Your task to perform on an android device: Clear all items from cart on target. Search for bose soundlink on target, select the first entry, add it to the cart, then select checkout. Image 0: 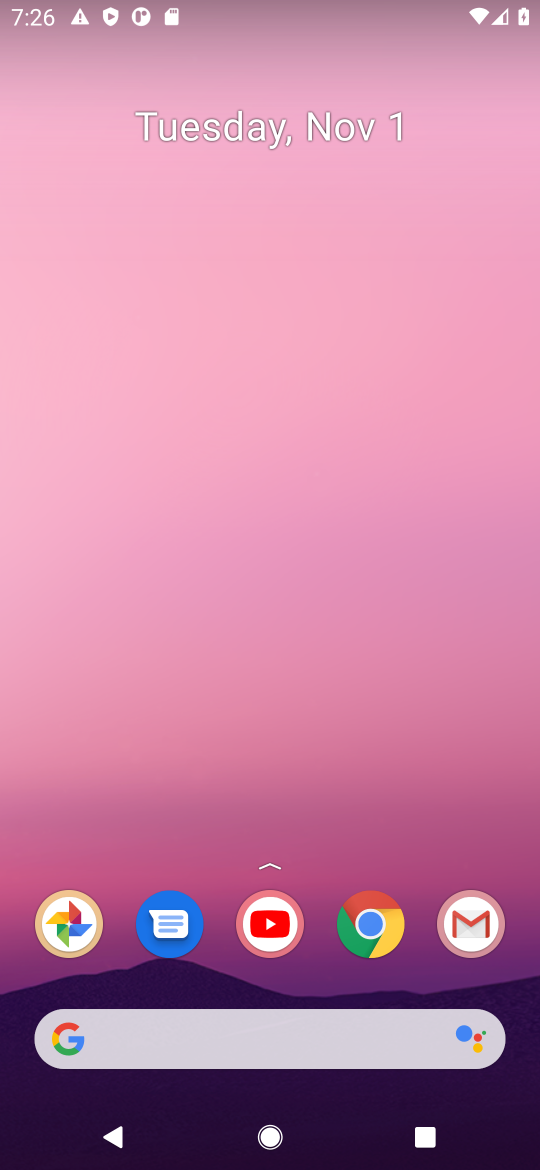
Step 0: press home button
Your task to perform on an android device: Clear all items from cart on target. Search for bose soundlink on target, select the first entry, add it to the cart, then select checkout. Image 1: 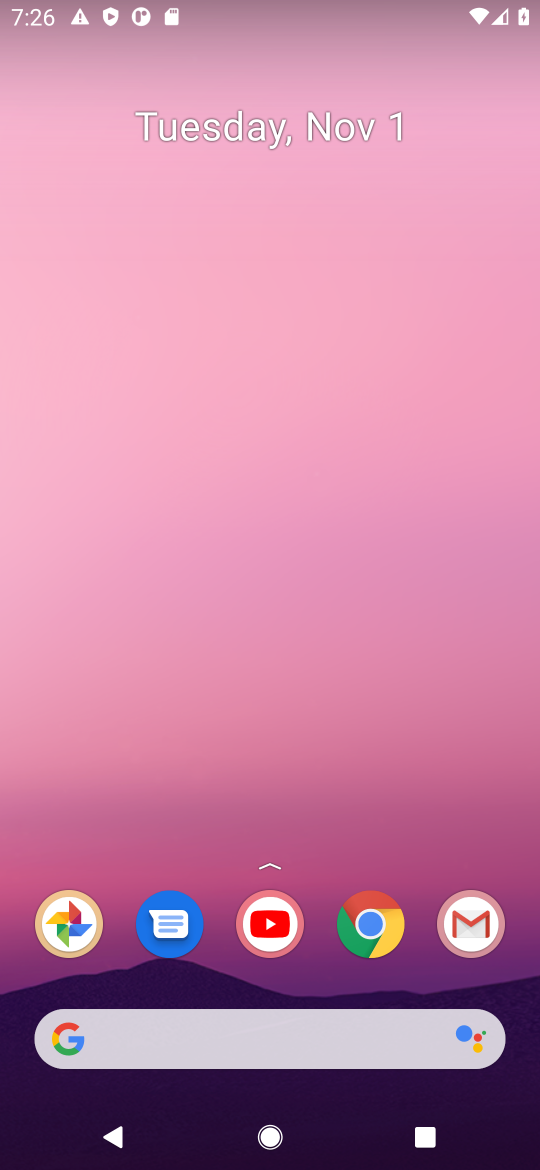
Step 1: click (93, 1048)
Your task to perform on an android device: Clear all items from cart on target. Search for bose soundlink on target, select the first entry, add it to the cart, then select checkout. Image 2: 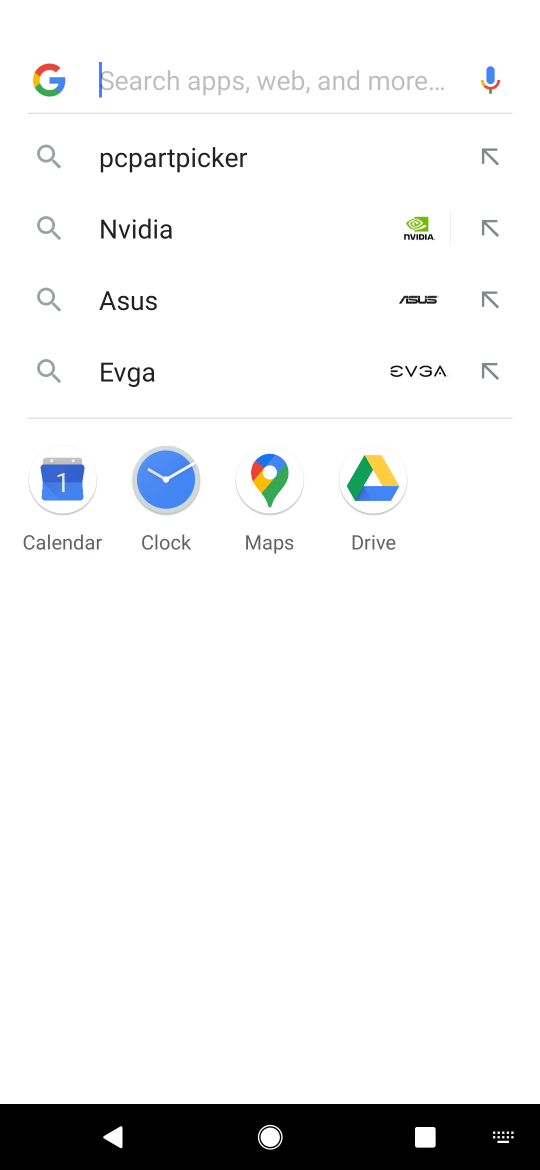
Step 2: type "target"
Your task to perform on an android device: Clear all items from cart on target. Search for bose soundlink on target, select the first entry, add it to the cart, then select checkout. Image 3: 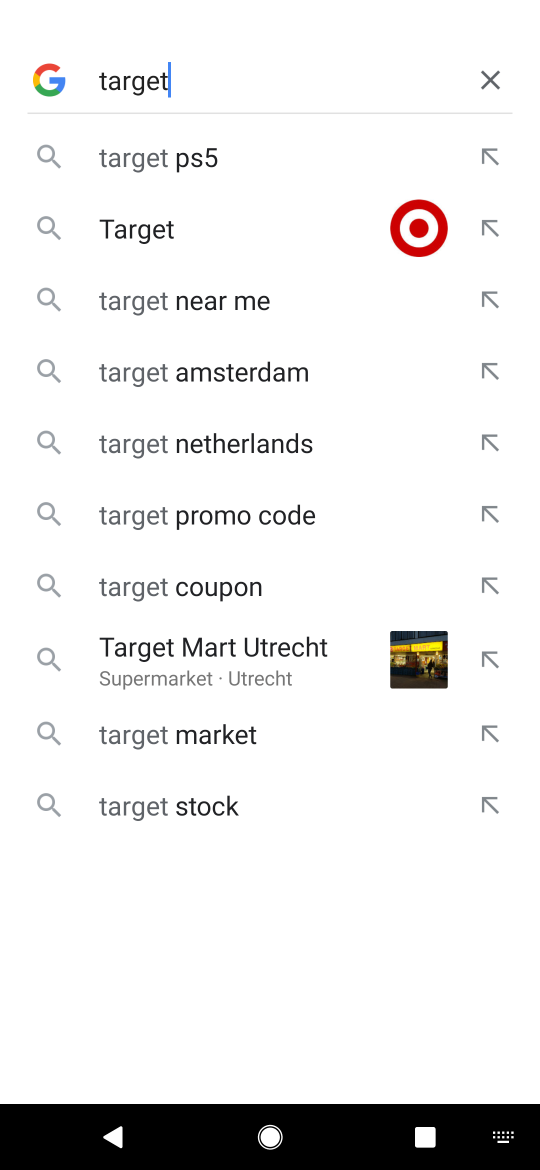
Step 3: press enter
Your task to perform on an android device: Clear all items from cart on target. Search for bose soundlink on target, select the first entry, add it to the cart, then select checkout. Image 4: 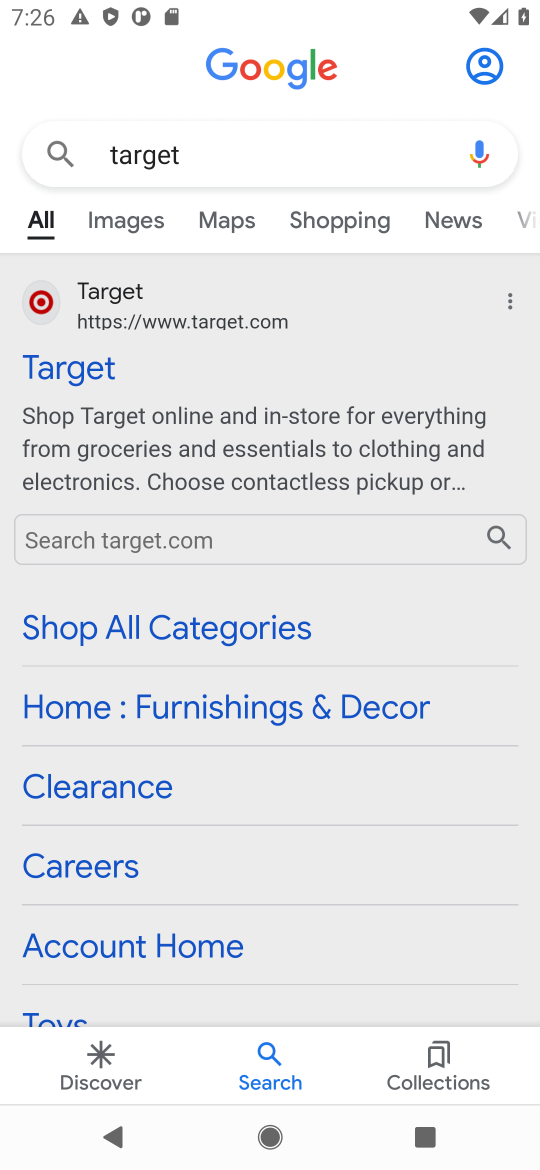
Step 4: click (91, 366)
Your task to perform on an android device: Clear all items from cart on target. Search for bose soundlink on target, select the first entry, add it to the cart, then select checkout. Image 5: 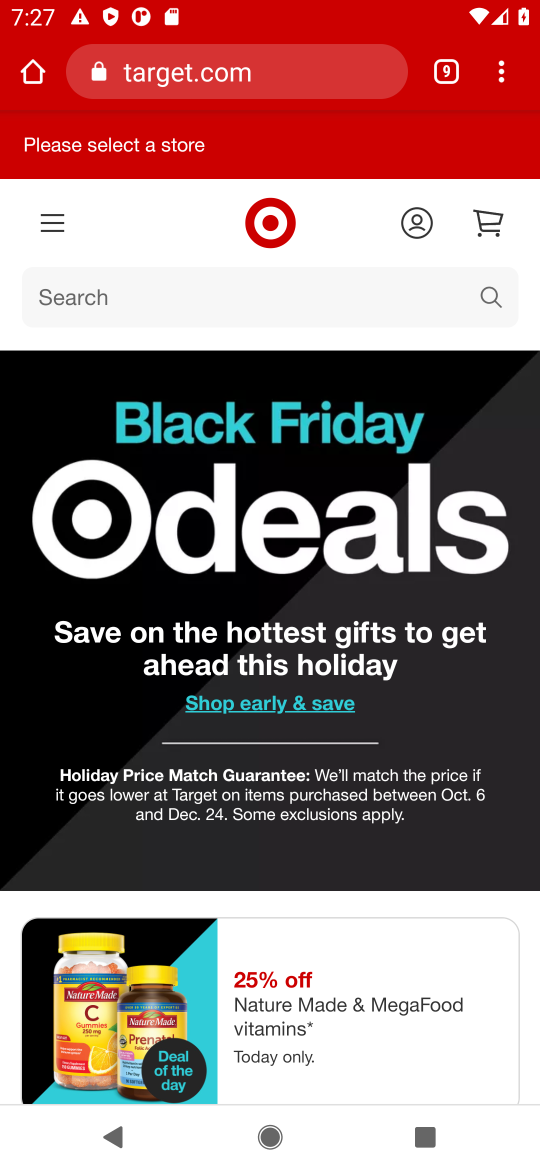
Step 5: click (497, 217)
Your task to perform on an android device: Clear all items from cart on target. Search for bose soundlink on target, select the first entry, add it to the cart, then select checkout. Image 6: 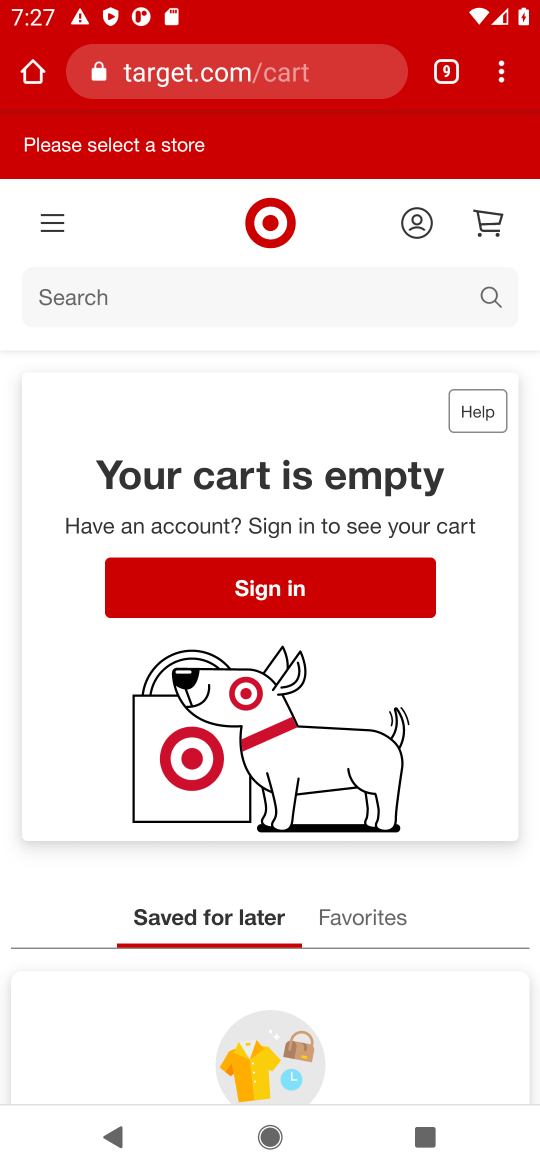
Step 6: click (146, 305)
Your task to perform on an android device: Clear all items from cart on target. Search for bose soundlink on target, select the first entry, add it to the cart, then select checkout. Image 7: 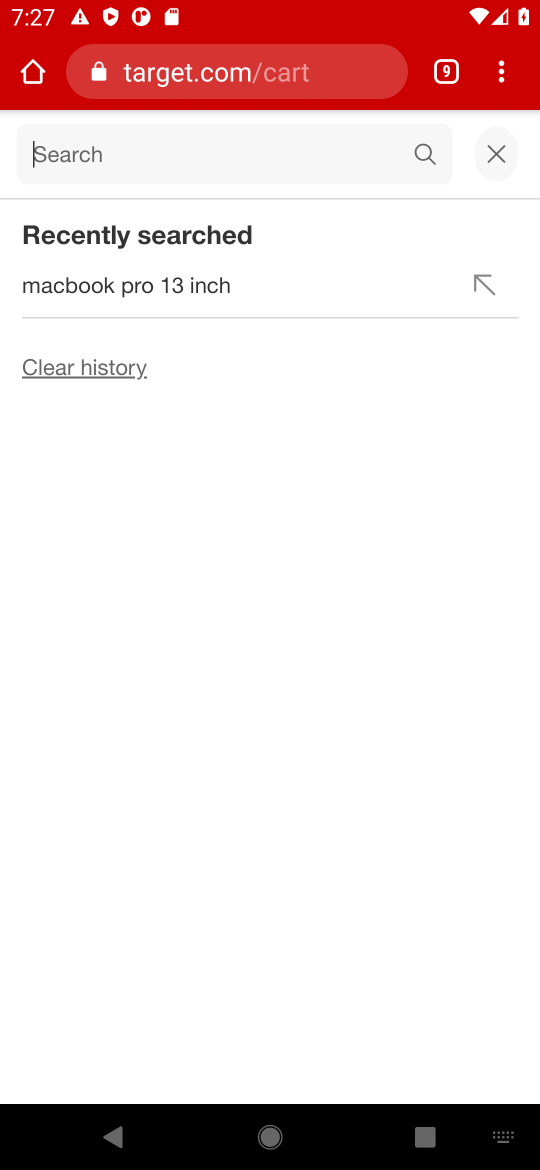
Step 7: type "bose soundlink"
Your task to perform on an android device: Clear all items from cart on target. Search for bose soundlink on target, select the first entry, add it to the cart, then select checkout. Image 8: 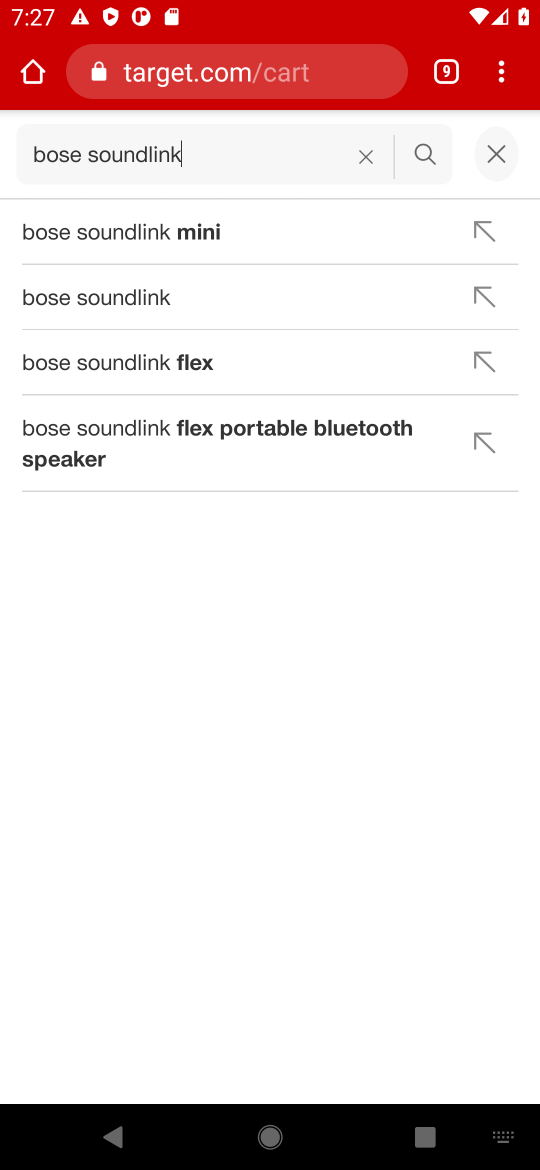
Step 8: press enter
Your task to perform on an android device: Clear all items from cart on target. Search for bose soundlink on target, select the first entry, add it to the cart, then select checkout. Image 9: 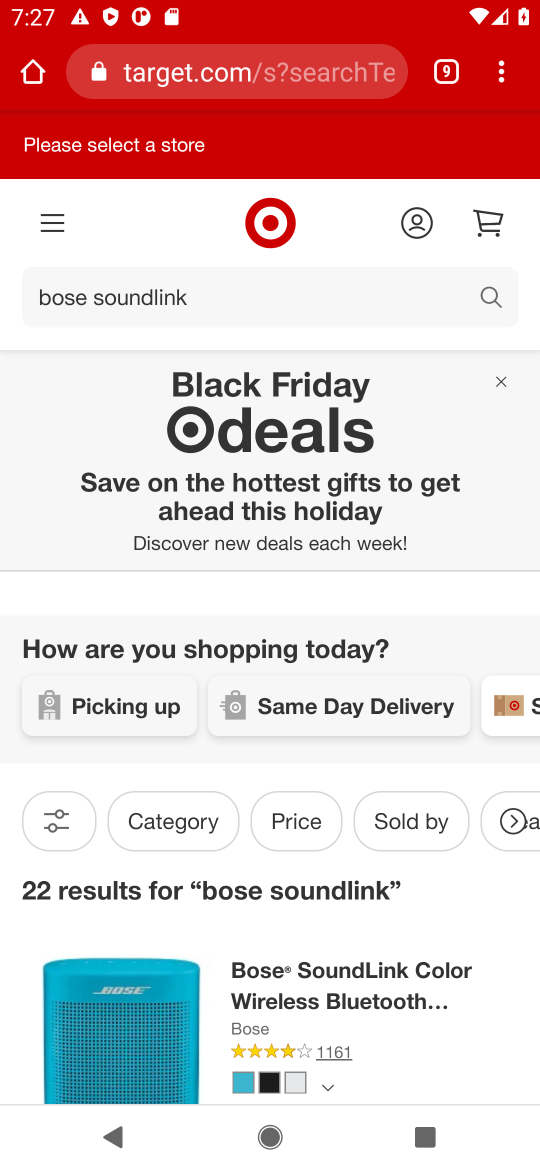
Step 9: drag from (422, 970) to (422, 645)
Your task to perform on an android device: Clear all items from cart on target. Search for bose soundlink on target, select the first entry, add it to the cart, then select checkout. Image 10: 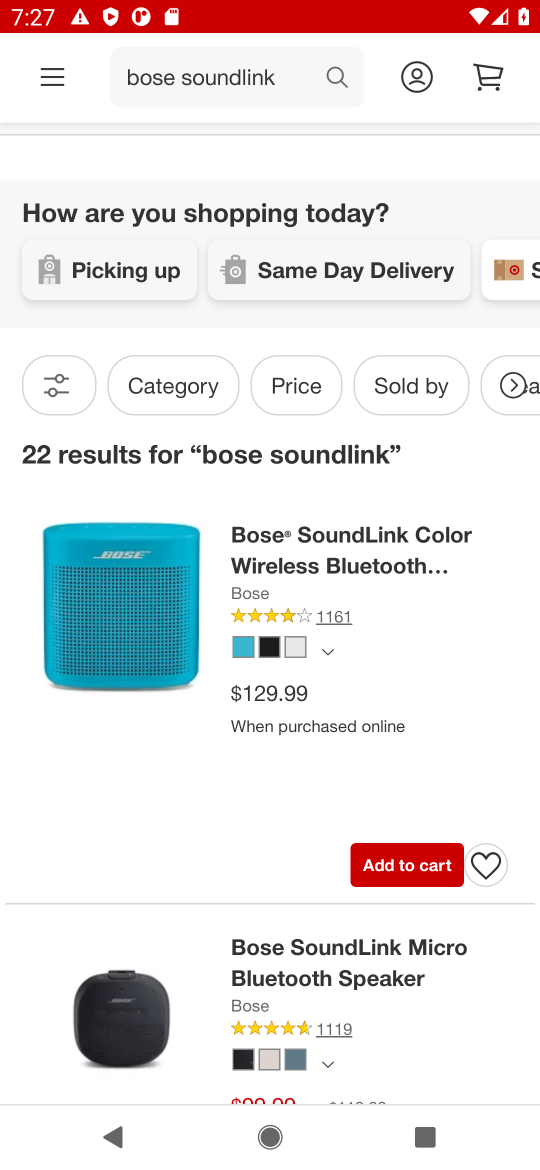
Step 10: click (399, 857)
Your task to perform on an android device: Clear all items from cart on target. Search for bose soundlink on target, select the first entry, add it to the cart, then select checkout. Image 11: 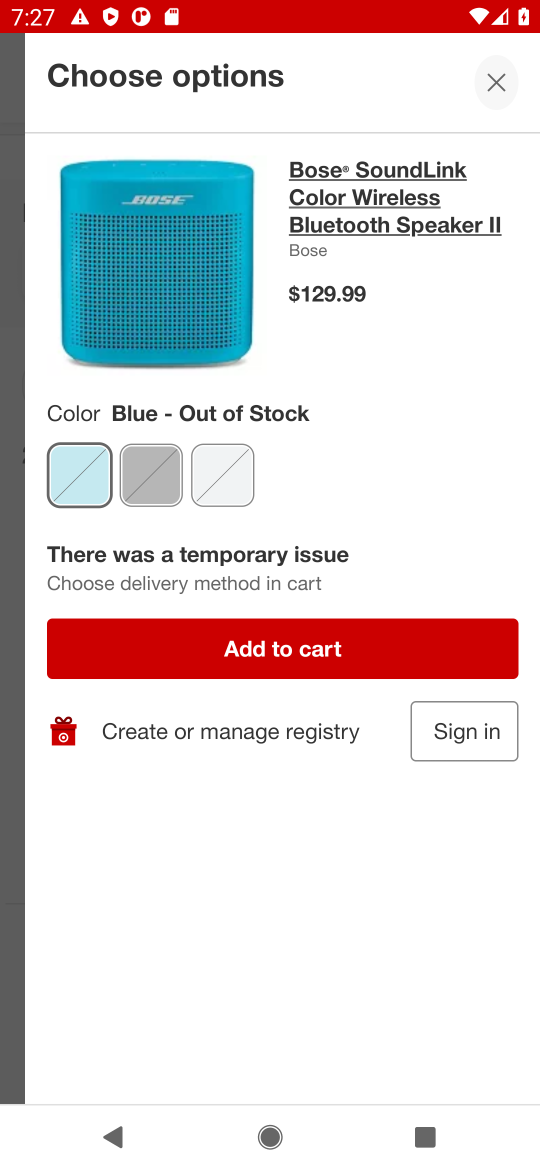
Step 11: click (305, 644)
Your task to perform on an android device: Clear all items from cart on target. Search for bose soundlink on target, select the first entry, add it to the cart, then select checkout. Image 12: 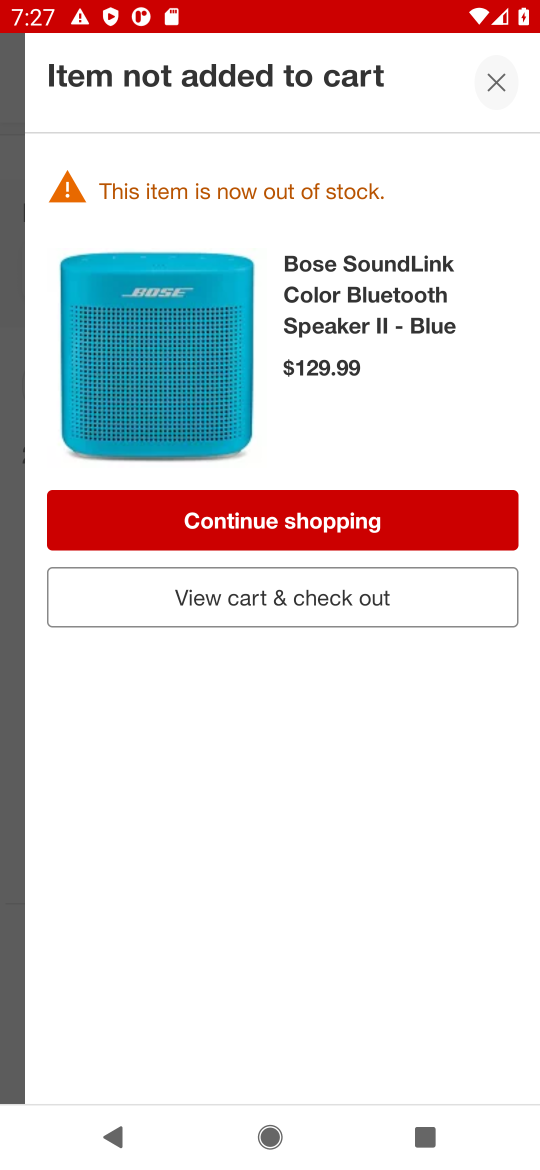
Step 12: click (344, 600)
Your task to perform on an android device: Clear all items from cart on target. Search for bose soundlink on target, select the first entry, add it to the cart, then select checkout. Image 13: 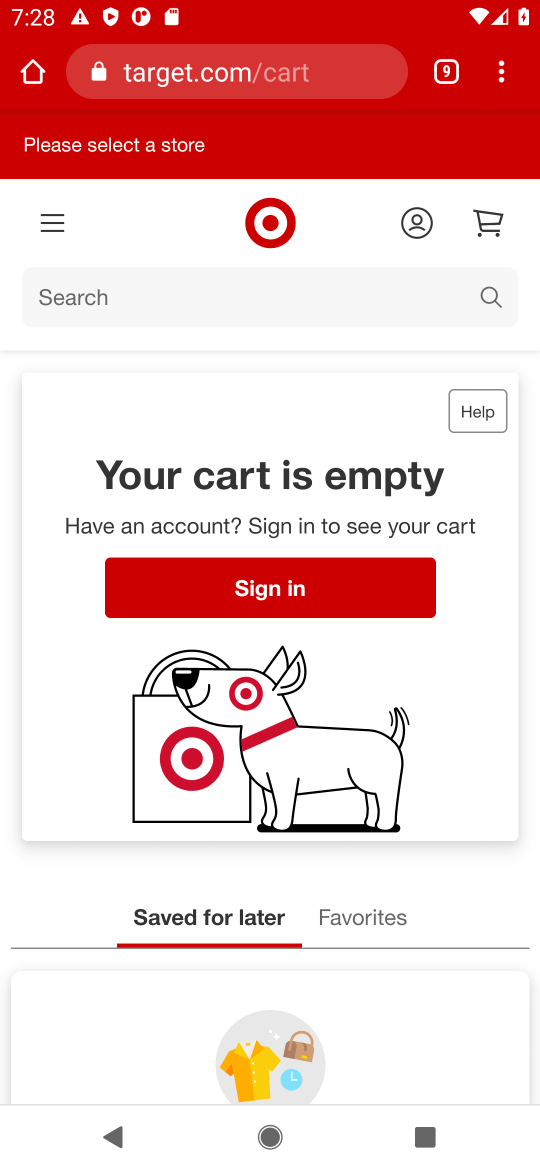
Step 13: task complete